Your task to perform on an android device: toggle notifications settings in the gmail app Image 0: 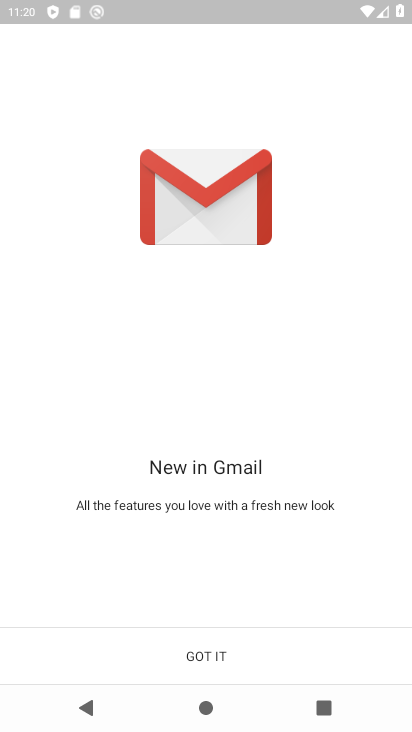
Step 0: click (200, 654)
Your task to perform on an android device: toggle notifications settings in the gmail app Image 1: 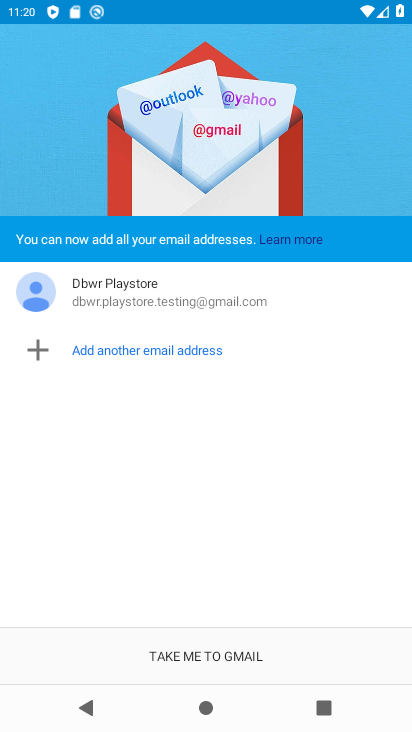
Step 1: click (200, 654)
Your task to perform on an android device: toggle notifications settings in the gmail app Image 2: 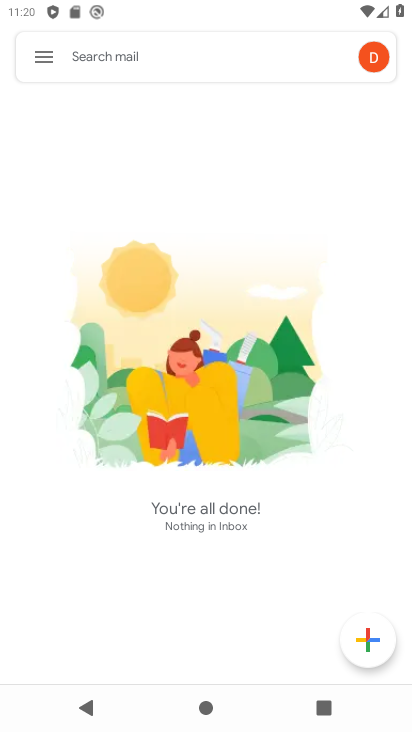
Step 2: click (47, 57)
Your task to perform on an android device: toggle notifications settings in the gmail app Image 3: 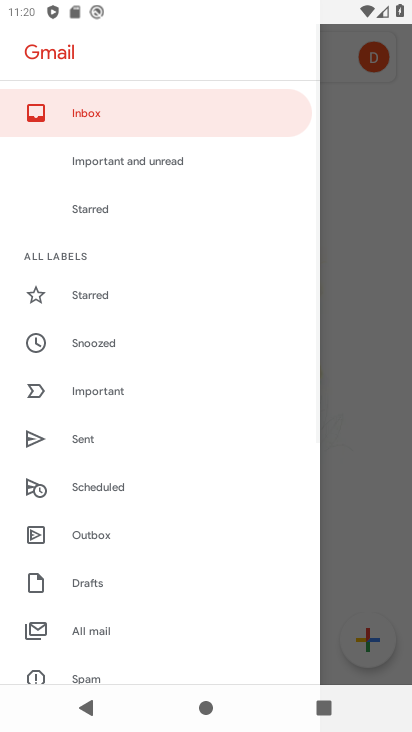
Step 3: drag from (171, 606) to (198, 249)
Your task to perform on an android device: toggle notifications settings in the gmail app Image 4: 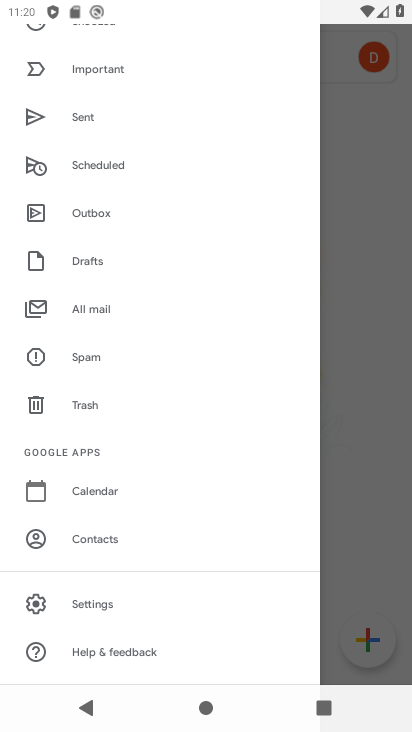
Step 4: click (109, 605)
Your task to perform on an android device: toggle notifications settings in the gmail app Image 5: 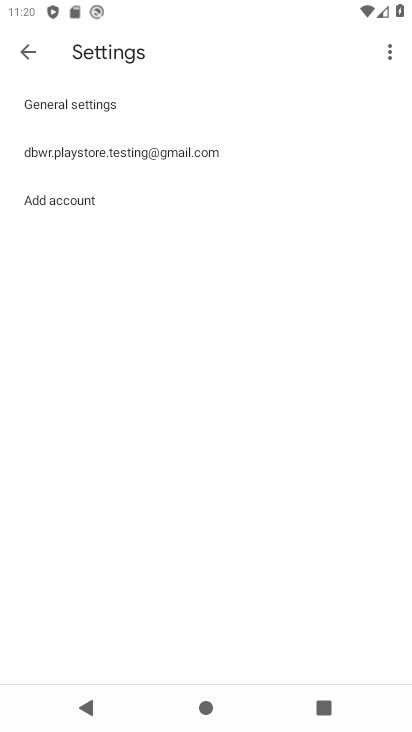
Step 5: click (112, 112)
Your task to perform on an android device: toggle notifications settings in the gmail app Image 6: 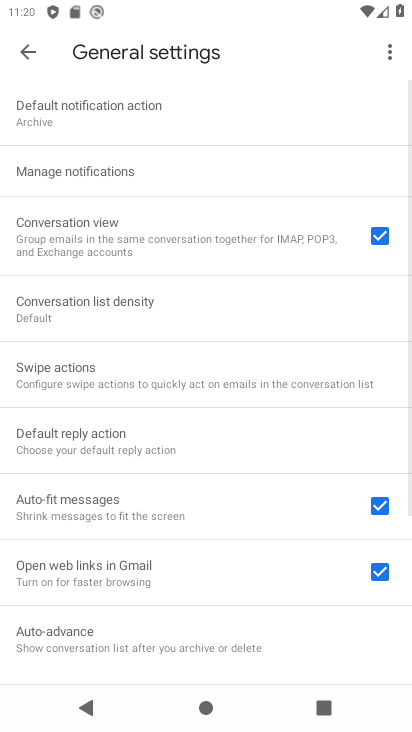
Step 6: click (116, 171)
Your task to perform on an android device: toggle notifications settings in the gmail app Image 7: 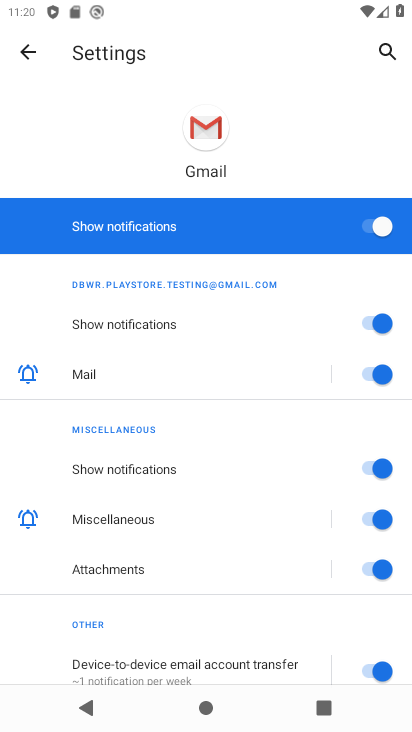
Step 7: click (366, 319)
Your task to perform on an android device: toggle notifications settings in the gmail app Image 8: 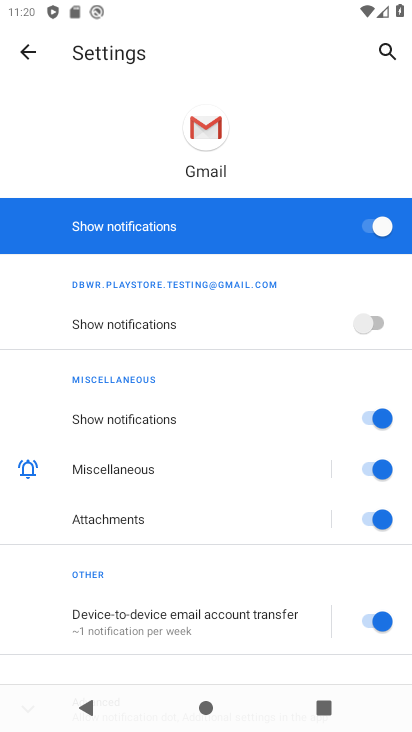
Step 8: task complete